Your task to perform on an android device: Open Google Image 0: 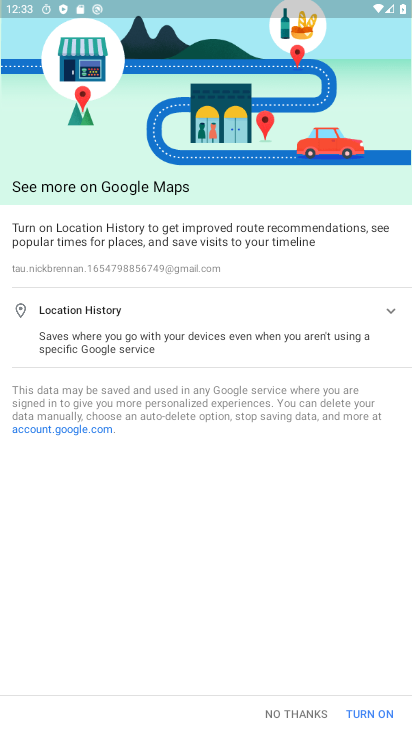
Step 0: press home button
Your task to perform on an android device: Open Google Image 1: 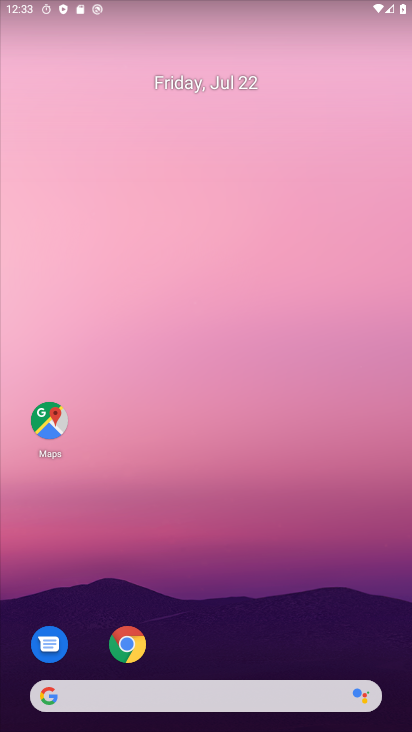
Step 1: drag from (183, 680) to (210, 30)
Your task to perform on an android device: Open Google Image 2: 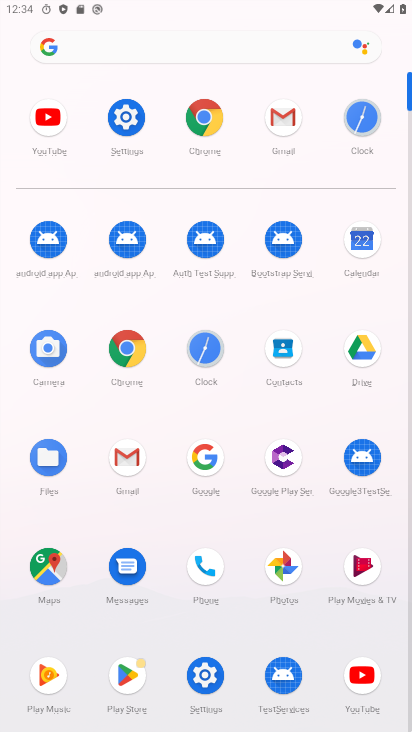
Step 2: click (213, 468)
Your task to perform on an android device: Open Google Image 3: 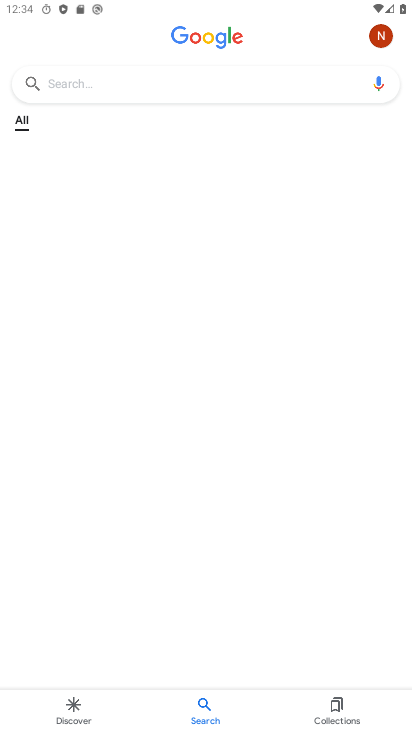
Step 3: task complete